Your task to perform on an android device: Clear all items from cart on bestbuy.com. Add "usb-c to usb-a" to the cart on bestbuy.com Image 0: 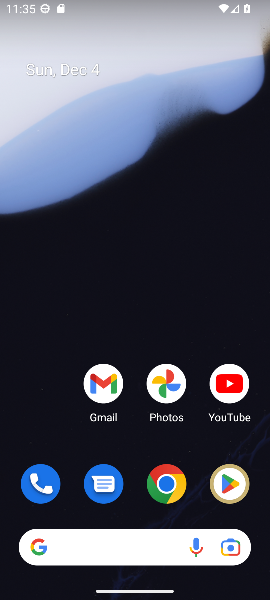
Step 0: click (166, 488)
Your task to perform on an android device: Clear all items from cart on bestbuy.com. Add "usb-c to usb-a" to the cart on bestbuy.com Image 1: 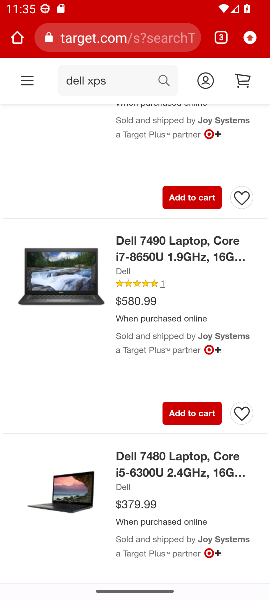
Step 1: click (110, 38)
Your task to perform on an android device: Clear all items from cart on bestbuy.com. Add "usb-c to usb-a" to the cart on bestbuy.com Image 2: 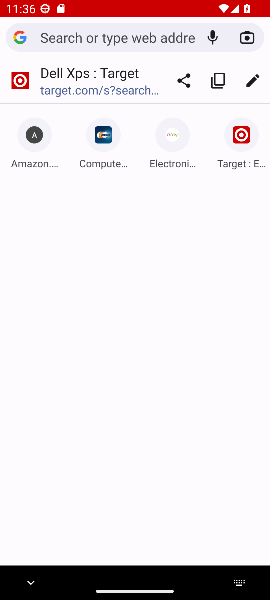
Step 2: type "bestbuy.com"
Your task to perform on an android device: Clear all items from cart on bestbuy.com. Add "usb-c to usb-a" to the cart on bestbuy.com Image 3: 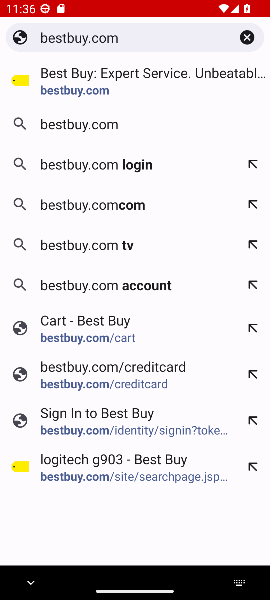
Step 3: click (73, 93)
Your task to perform on an android device: Clear all items from cart on bestbuy.com. Add "usb-c to usb-a" to the cart on bestbuy.com Image 4: 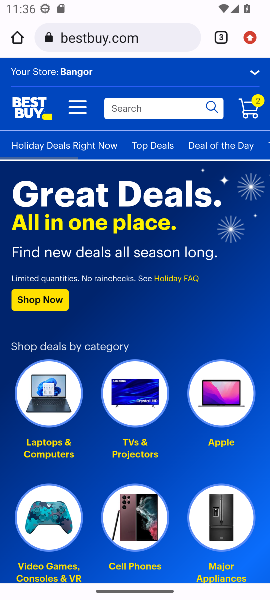
Step 4: click (252, 111)
Your task to perform on an android device: Clear all items from cart on bestbuy.com. Add "usb-c to usb-a" to the cart on bestbuy.com Image 5: 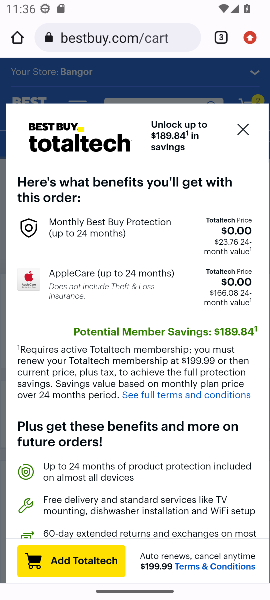
Step 5: click (240, 131)
Your task to perform on an android device: Clear all items from cart on bestbuy.com. Add "usb-c to usb-a" to the cart on bestbuy.com Image 6: 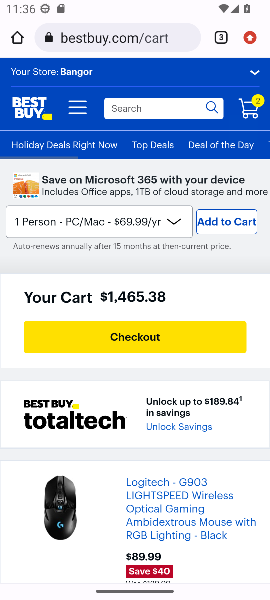
Step 6: drag from (185, 321) to (173, 188)
Your task to perform on an android device: Clear all items from cart on bestbuy.com. Add "usb-c to usb-a" to the cart on bestbuy.com Image 7: 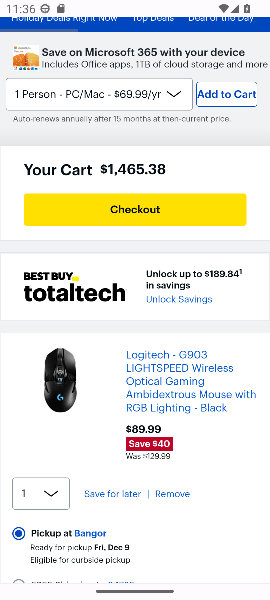
Step 7: click (168, 492)
Your task to perform on an android device: Clear all items from cart on bestbuy.com. Add "usb-c to usb-a" to the cart on bestbuy.com Image 8: 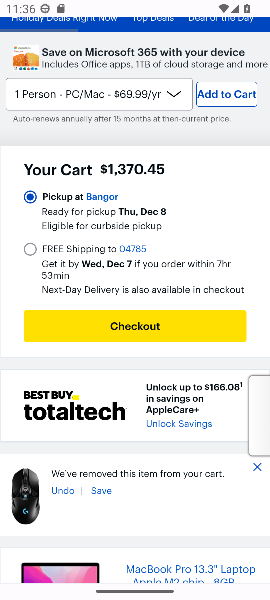
Step 8: drag from (129, 468) to (117, 281)
Your task to perform on an android device: Clear all items from cart on bestbuy.com. Add "usb-c to usb-a" to the cart on bestbuy.com Image 9: 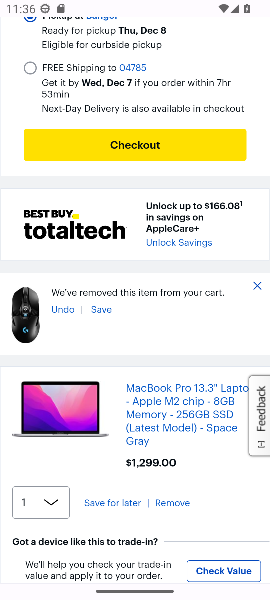
Step 9: click (164, 509)
Your task to perform on an android device: Clear all items from cart on bestbuy.com. Add "usb-c to usb-a" to the cart on bestbuy.com Image 10: 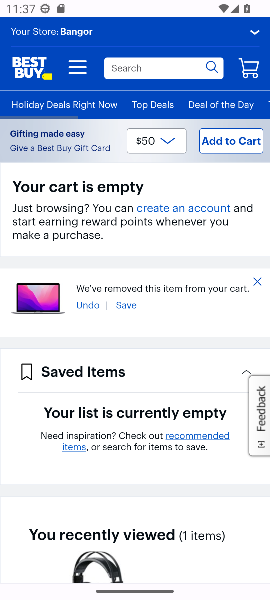
Step 10: click (129, 67)
Your task to perform on an android device: Clear all items from cart on bestbuy.com. Add "usb-c to usb-a" to the cart on bestbuy.com Image 11: 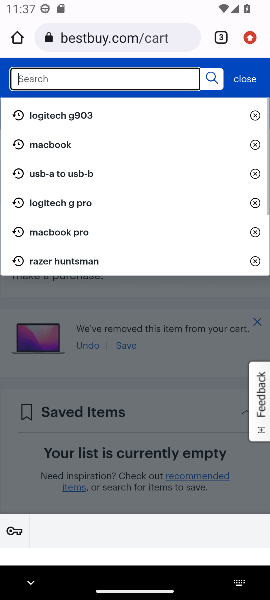
Step 11: type "usb-c to usb-a"
Your task to perform on an android device: Clear all items from cart on bestbuy.com. Add "usb-c to usb-a" to the cart on bestbuy.com Image 12: 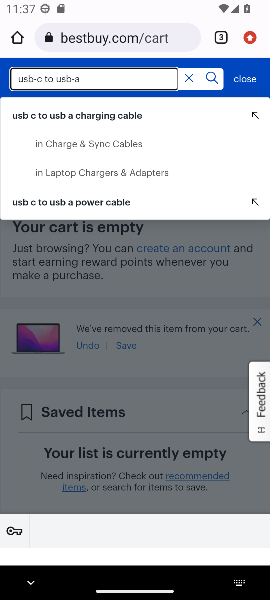
Step 12: click (211, 81)
Your task to perform on an android device: Clear all items from cart on bestbuy.com. Add "usb-c to usb-a" to the cart on bestbuy.com Image 13: 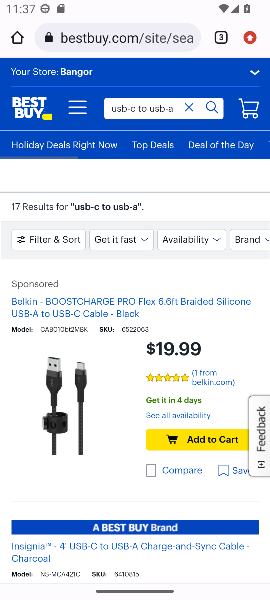
Step 13: drag from (67, 407) to (57, 268)
Your task to perform on an android device: Clear all items from cart on bestbuy.com. Add "usb-c to usb-a" to the cart on bestbuy.com Image 14: 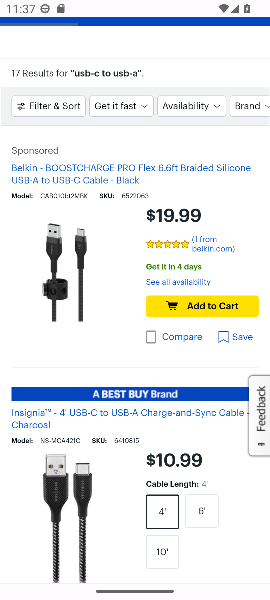
Step 14: drag from (78, 477) to (81, 306)
Your task to perform on an android device: Clear all items from cart on bestbuy.com. Add "usb-c to usb-a" to the cart on bestbuy.com Image 15: 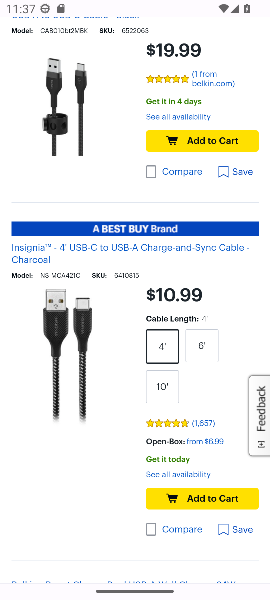
Step 15: click (186, 500)
Your task to perform on an android device: Clear all items from cart on bestbuy.com. Add "usb-c to usb-a" to the cart on bestbuy.com Image 16: 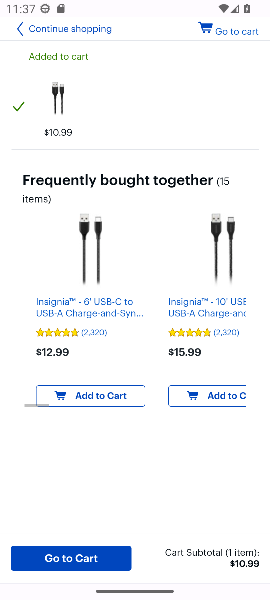
Step 16: task complete